Your task to perform on an android device: toggle sleep mode Image 0: 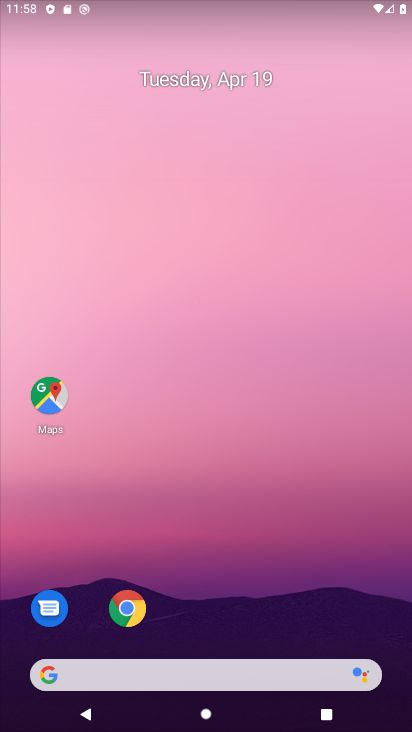
Step 0: drag from (186, 185) to (193, 0)
Your task to perform on an android device: toggle sleep mode Image 1: 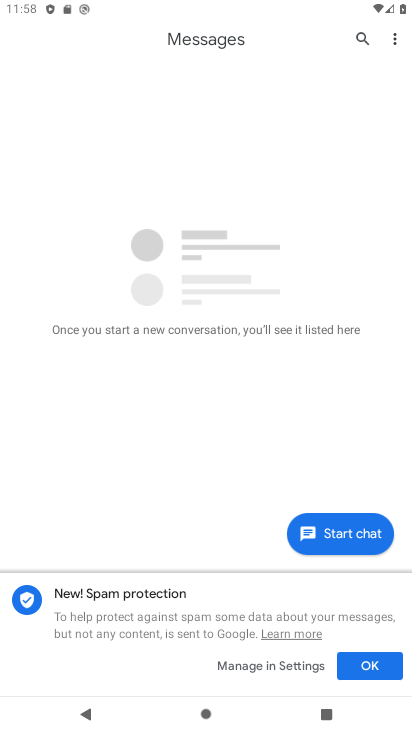
Step 1: press home button
Your task to perform on an android device: toggle sleep mode Image 2: 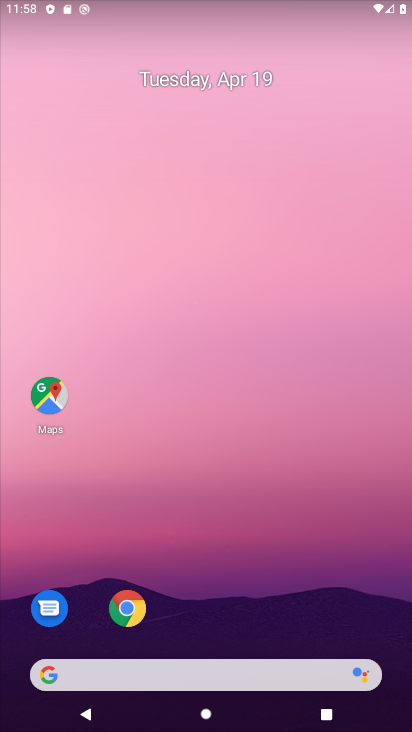
Step 2: drag from (253, 589) to (238, 133)
Your task to perform on an android device: toggle sleep mode Image 3: 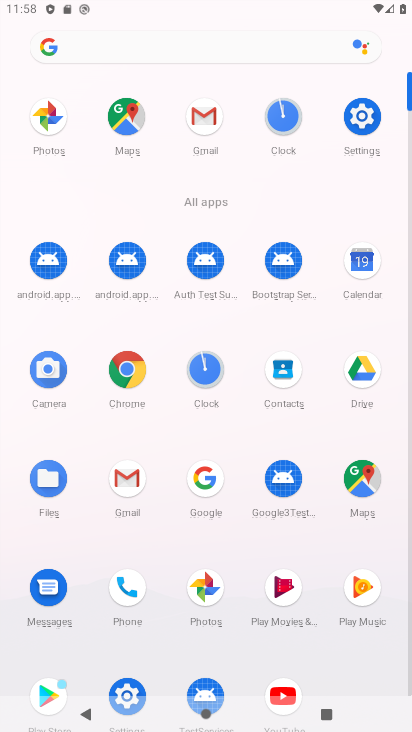
Step 3: click (359, 113)
Your task to perform on an android device: toggle sleep mode Image 4: 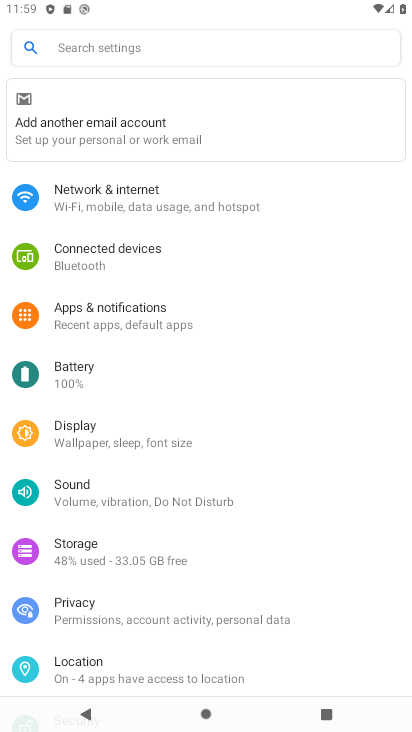
Step 4: click (144, 441)
Your task to perform on an android device: toggle sleep mode Image 5: 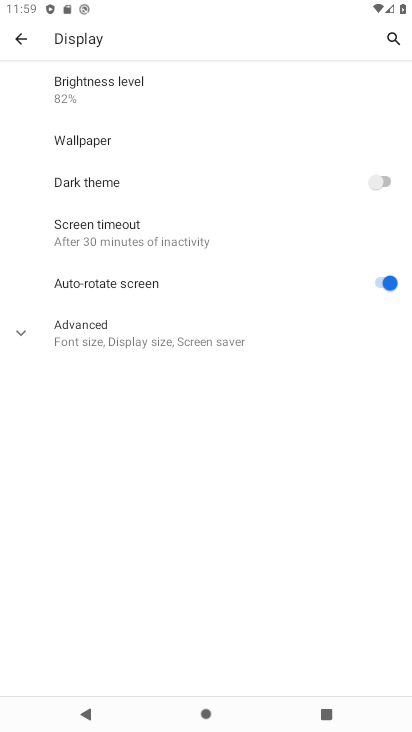
Step 5: click (139, 339)
Your task to perform on an android device: toggle sleep mode Image 6: 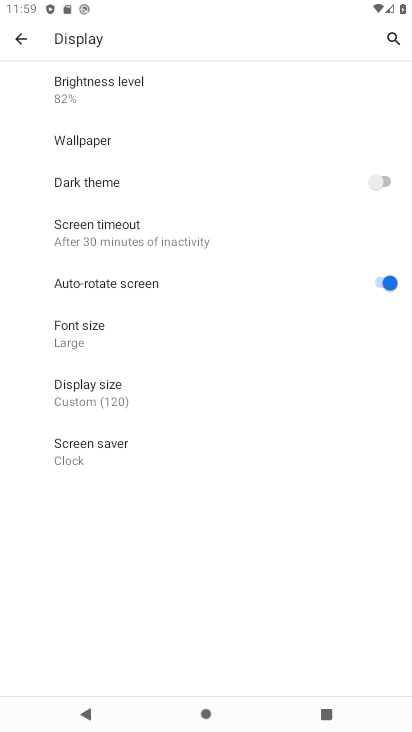
Step 6: task complete